Your task to perform on an android device: Go to Google Image 0: 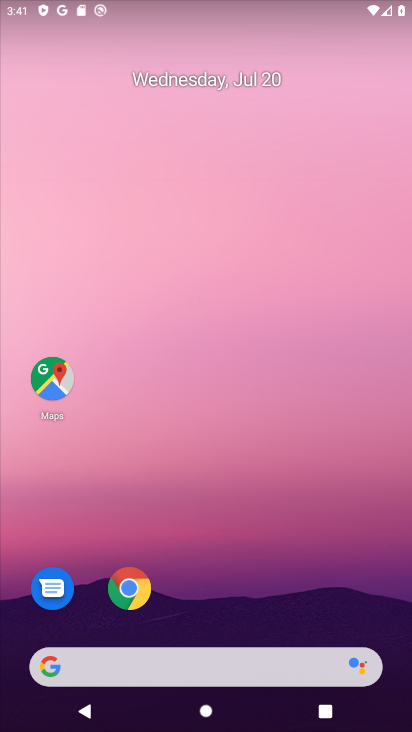
Step 0: click (226, 654)
Your task to perform on an android device: Go to Google Image 1: 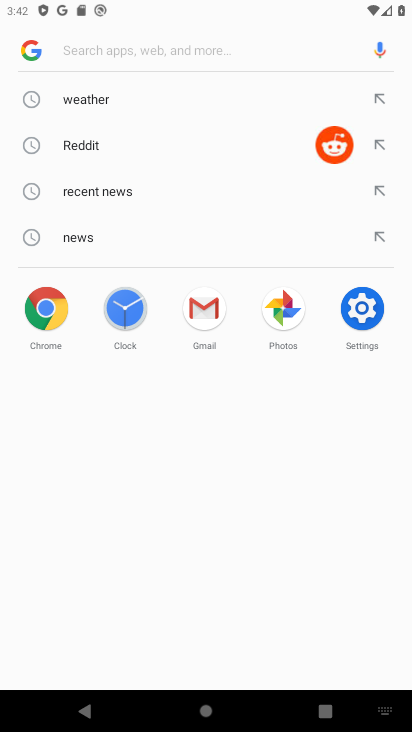
Step 1: task complete